Your task to perform on an android device: Open Yahoo.com Image 0: 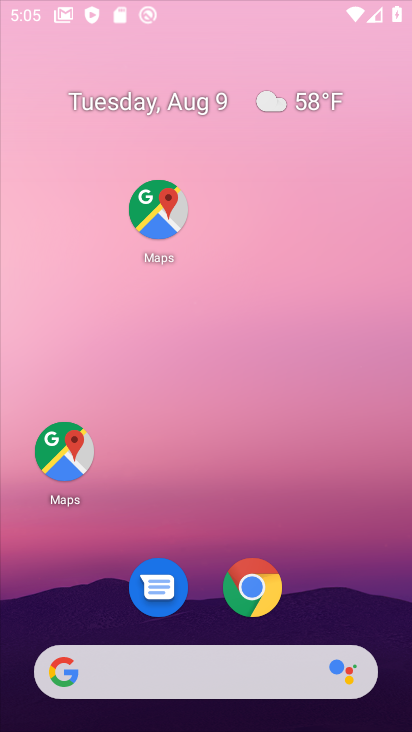
Step 0: drag from (354, 432) to (236, 127)
Your task to perform on an android device: Open Yahoo.com Image 1: 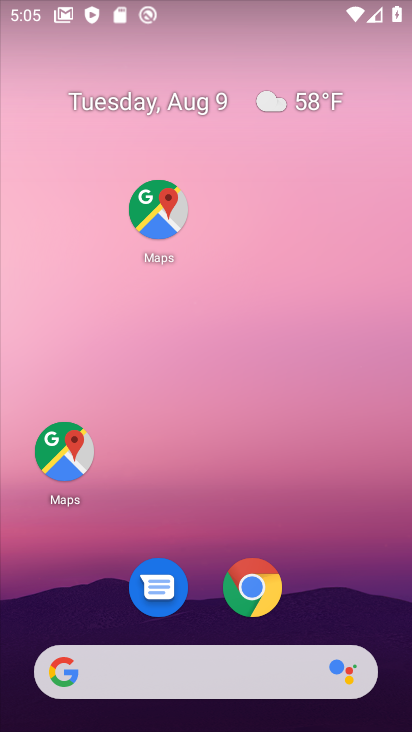
Step 1: drag from (275, 708) to (229, 132)
Your task to perform on an android device: Open Yahoo.com Image 2: 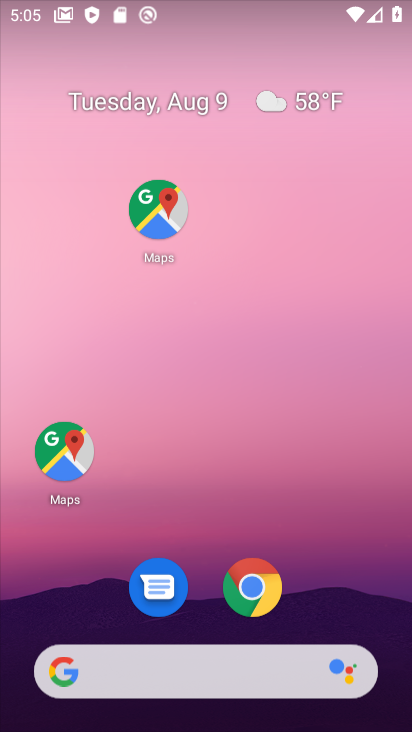
Step 2: drag from (171, 588) to (145, 182)
Your task to perform on an android device: Open Yahoo.com Image 3: 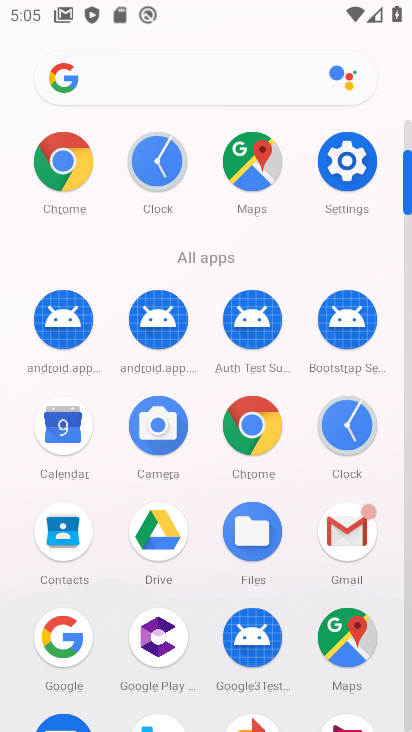
Step 3: click (56, 153)
Your task to perform on an android device: Open Yahoo.com Image 4: 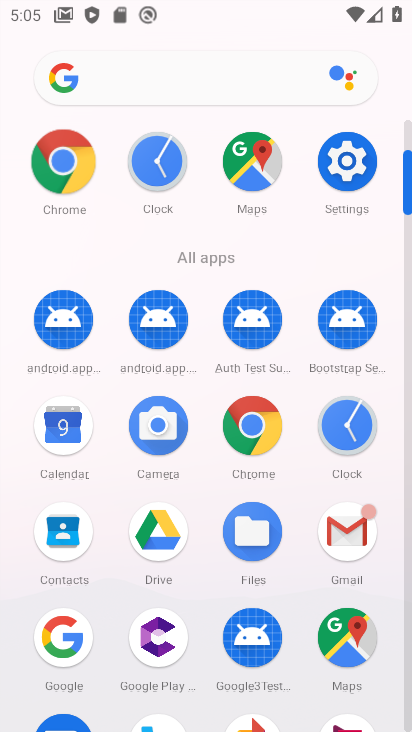
Step 4: click (61, 153)
Your task to perform on an android device: Open Yahoo.com Image 5: 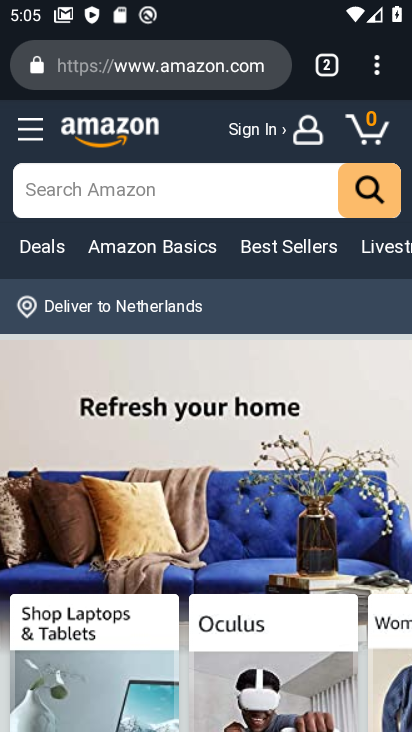
Step 5: drag from (379, 61) to (126, 126)
Your task to perform on an android device: Open Yahoo.com Image 6: 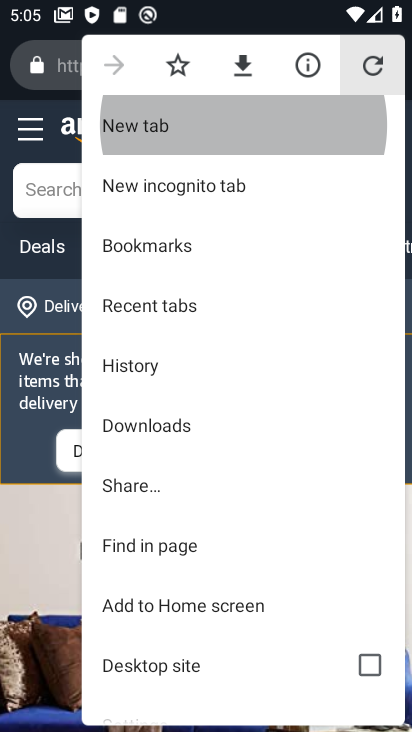
Step 6: click (133, 129)
Your task to perform on an android device: Open Yahoo.com Image 7: 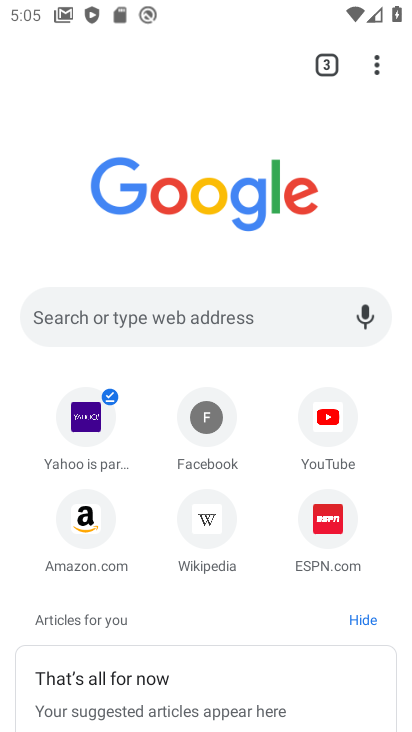
Step 7: click (72, 416)
Your task to perform on an android device: Open Yahoo.com Image 8: 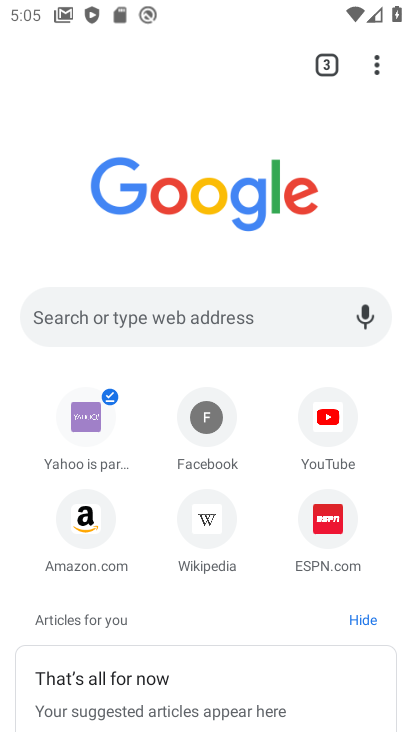
Step 8: click (72, 416)
Your task to perform on an android device: Open Yahoo.com Image 9: 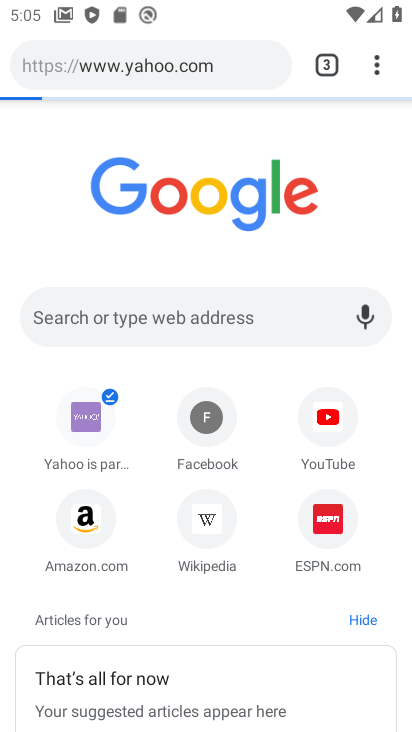
Step 9: click (70, 415)
Your task to perform on an android device: Open Yahoo.com Image 10: 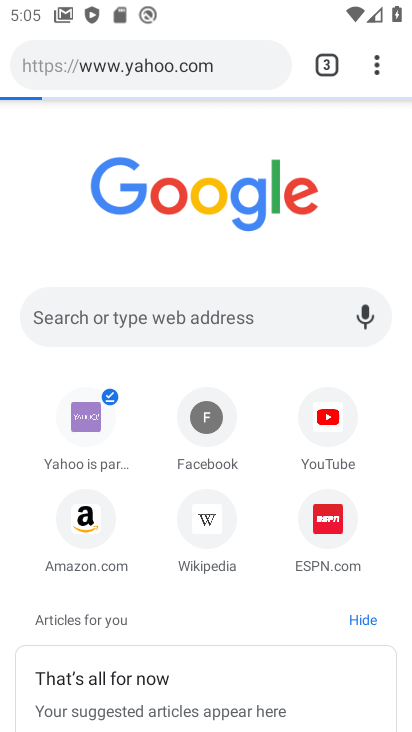
Step 10: click (71, 415)
Your task to perform on an android device: Open Yahoo.com Image 11: 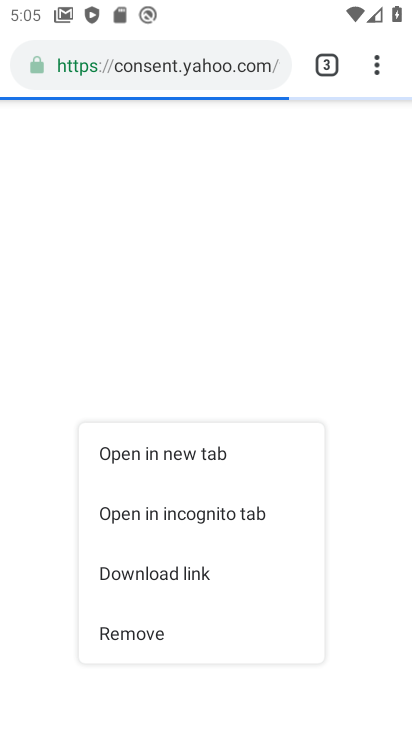
Step 11: click (72, 416)
Your task to perform on an android device: Open Yahoo.com Image 12: 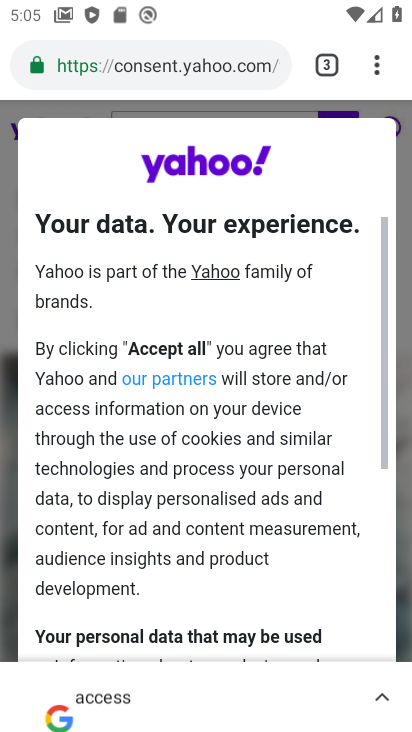
Step 12: task complete